Your task to perform on an android device: Open calendar and show me the first week of next month Image 0: 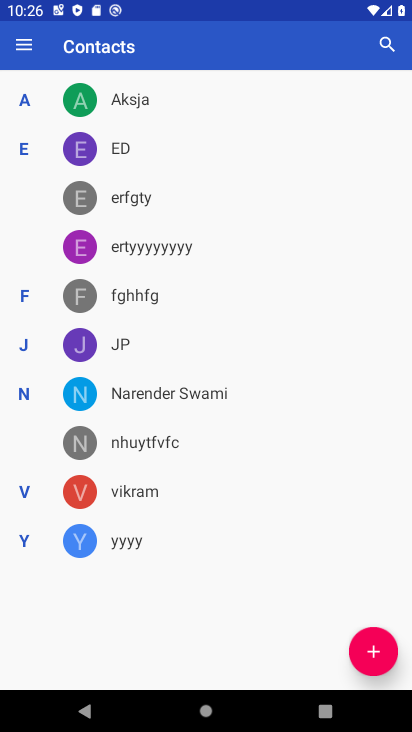
Step 0: press home button
Your task to perform on an android device: Open calendar and show me the first week of next month Image 1: 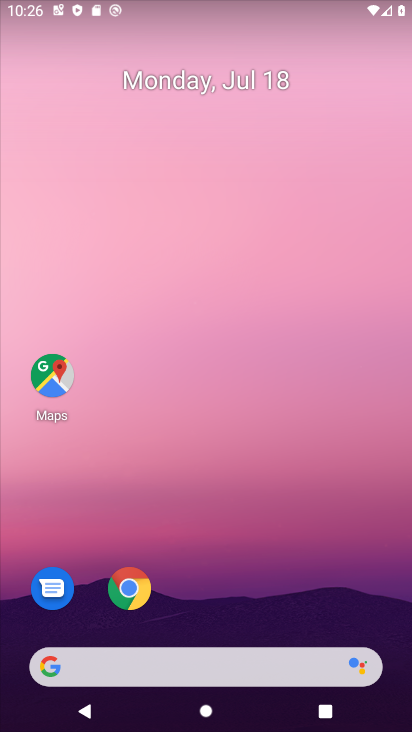
Step 1: drag from (226, 695) to (226, 216)
Your task to perform on an android device: Open calendar and show me the first week of next month Image 2: 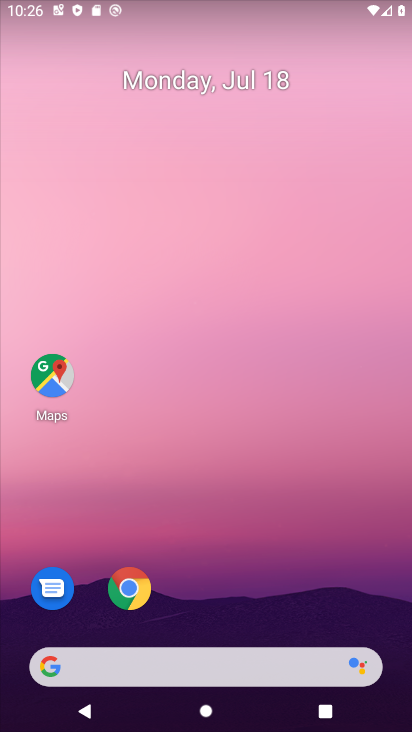
Step 2: drag from (230, 706) to (257, 116)
Your task to perform on an android device: Open calendar and show me the first week of next month Image 3: 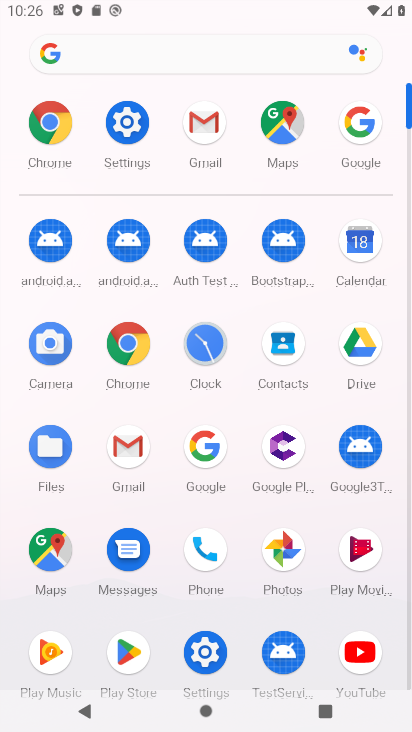
Step 3: click (356, 243)
Your task to perform on an android device: Open calendar and show me the first week of next month Image 4: 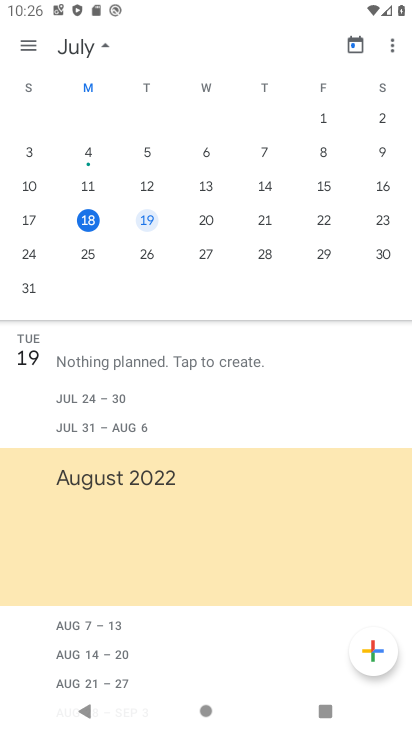
Step 4: drag from (335, 212) to (20, 211)
Your task to perform on an android device: Open calendar and show me the first week of next month Image 5: 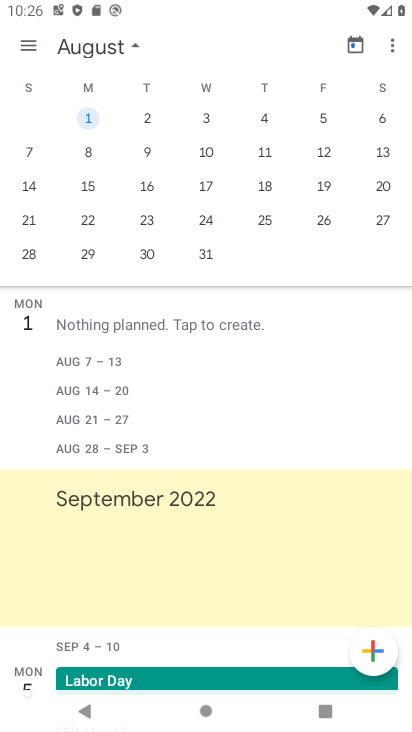
Step 5: click (26, 42)
Your task to perform on an android device: Open calendar and show me the first week of next month Image 6: 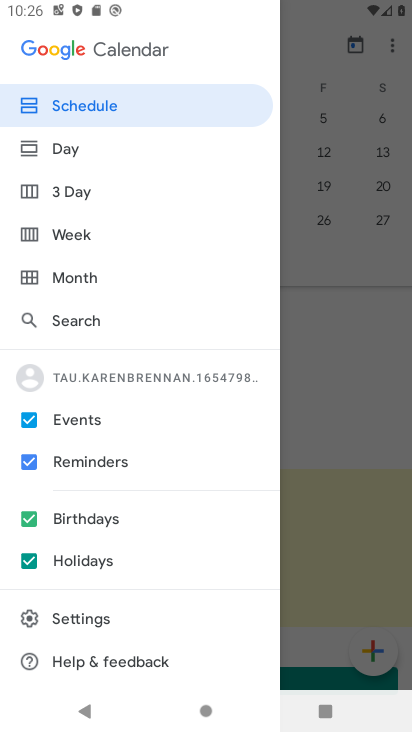
Step 6: click (83, 237)
Your task to perform on an android device: Open calendar and show me the first week of next month Image 7: 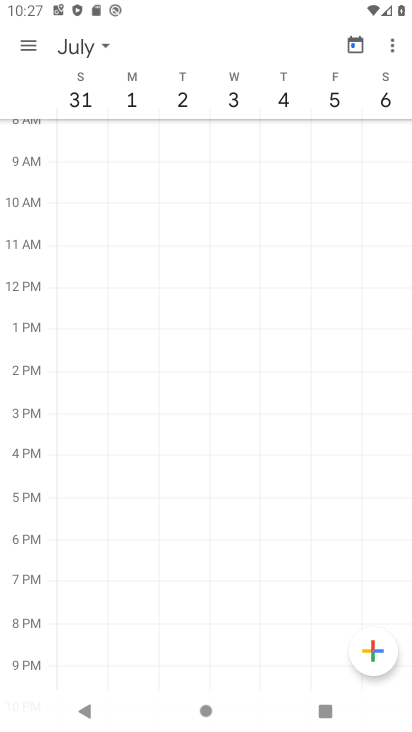
Step 7: task complete